Your task to perform on an android device: change keyboard looks Image 0: 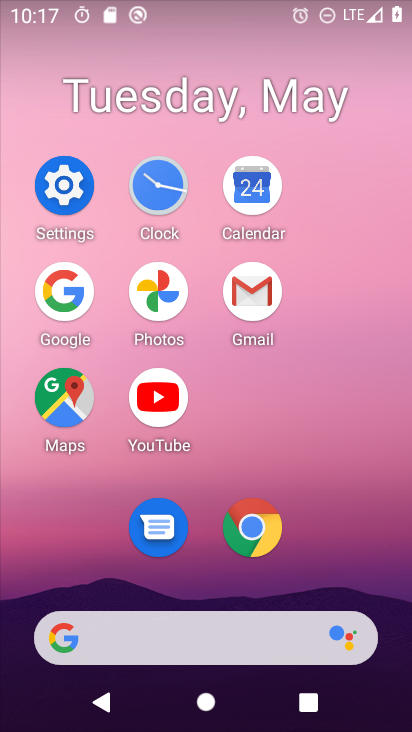
Step 0: click (83, 198)
Your task to perform on an android device: change keyboard looks Image 1: 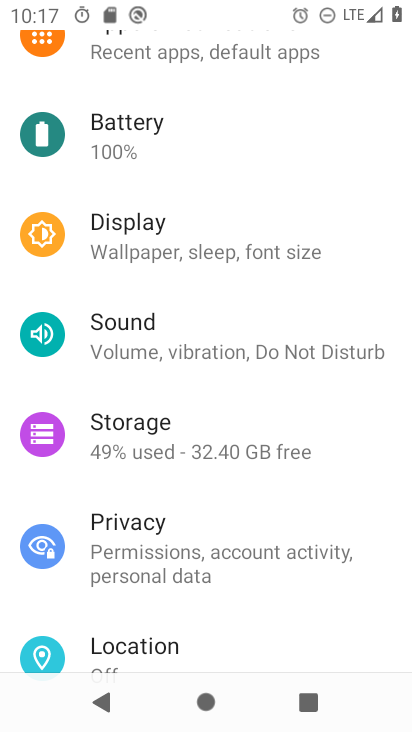
Step 1: drag from (225, 610) to (233, 245)
Your task to perform on an android device: change keyboard looks Image 2: 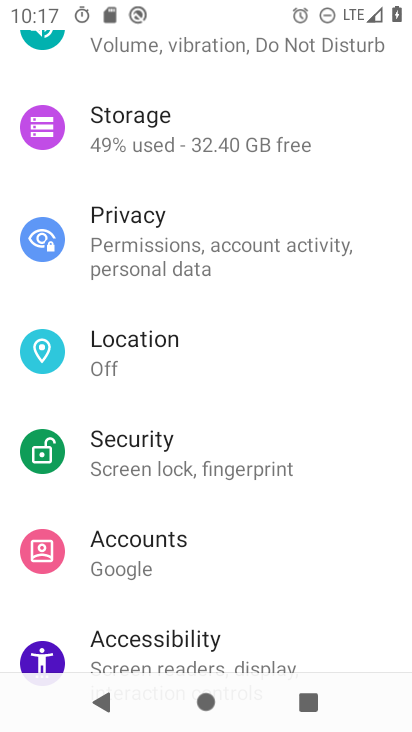
Step 2: drag from (223, 558) to (229, 223)
Your task to perform on an android device: change keyboard looks Image 3: 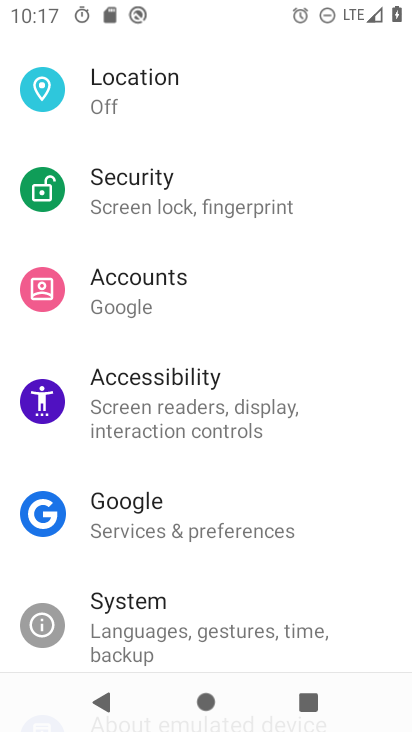
Step 3: drag from (215, 574) to (215, 264)
Your task to perform on an android device: change keyboard looks Image 4: 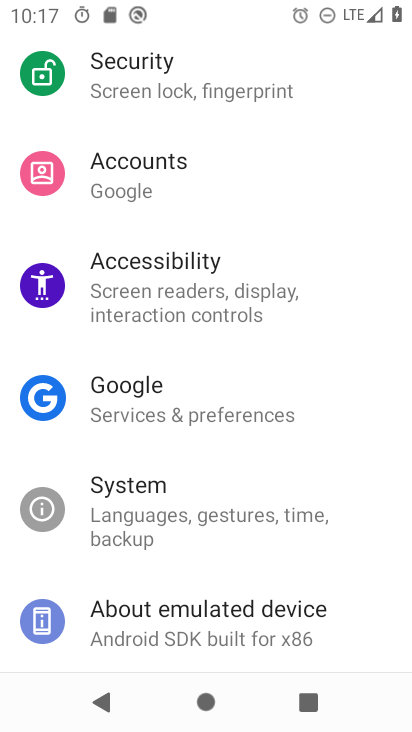
Step 4: click (226, 499)
Your task to perform on an android device: change keyboard looks Image 5: 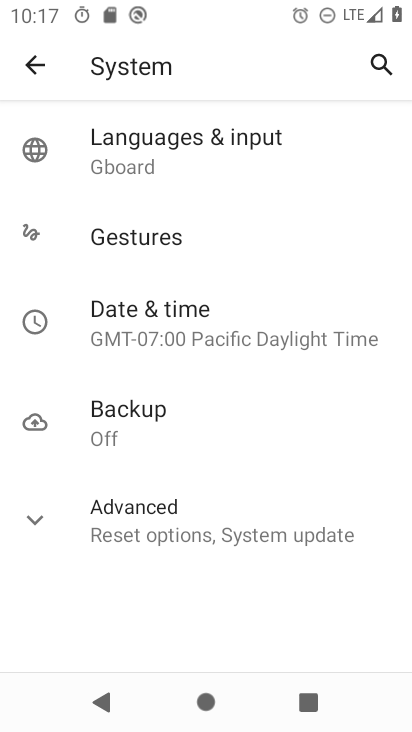
Step 5: click (172, 172)
Your task to perform on an android device: change keyboard looks Image 6: 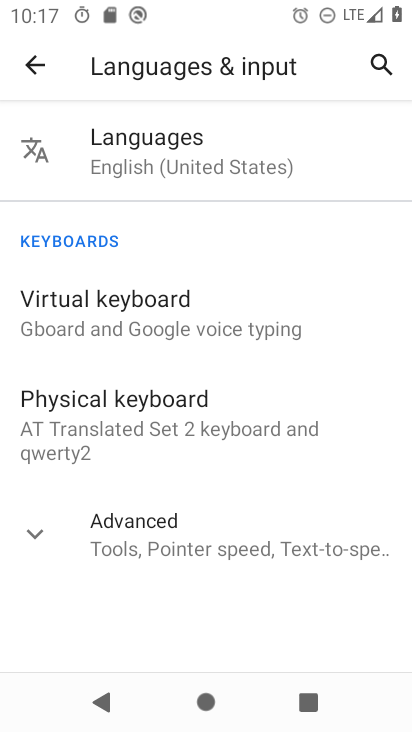
Step 6: click (191, 326)
Your task to perform on an android device: change keyboard looks Image 7: 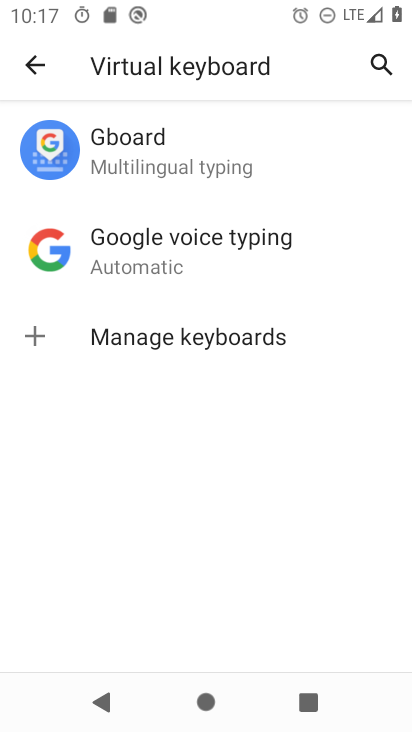
Step 7: click (149, 158)
Your task to perform on an android device: change keyboard looks Image 8: 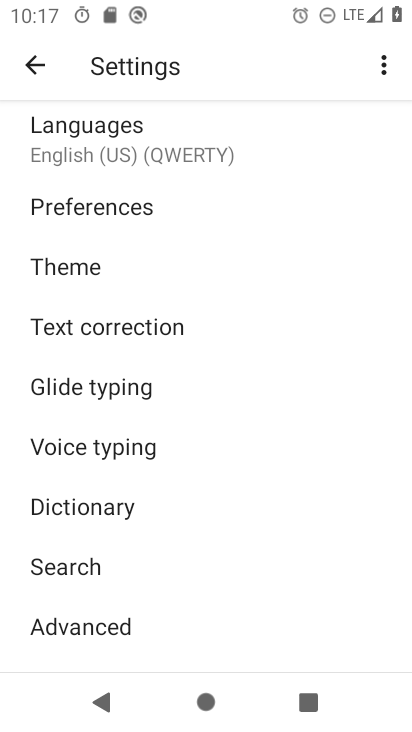
Step 8: click (68, 265)
Your task to perform on an android device: change keyboard looks Image 9: 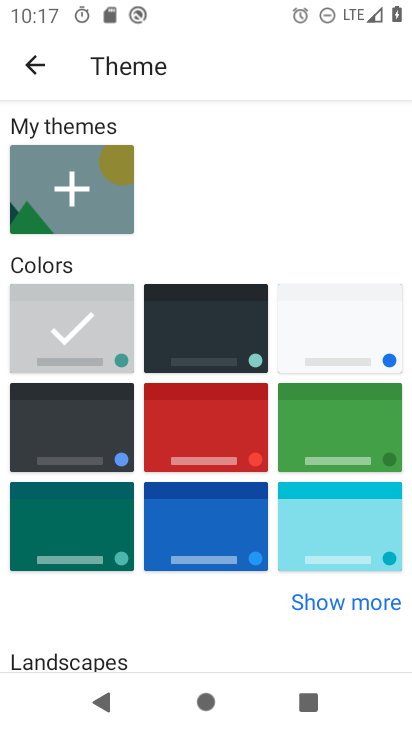
Step 9: click (255, 360)
Your task to perform on an android device: change keyboard looks Image 10: 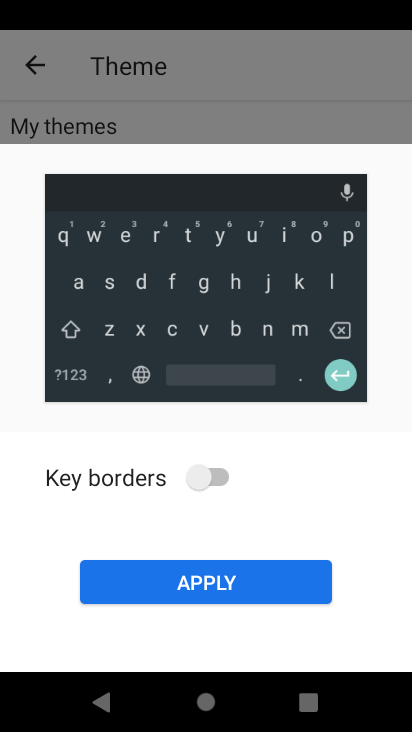
Step 10: click (215, 476)
Your task to perform on an android device: change keyboard looks Image 11: 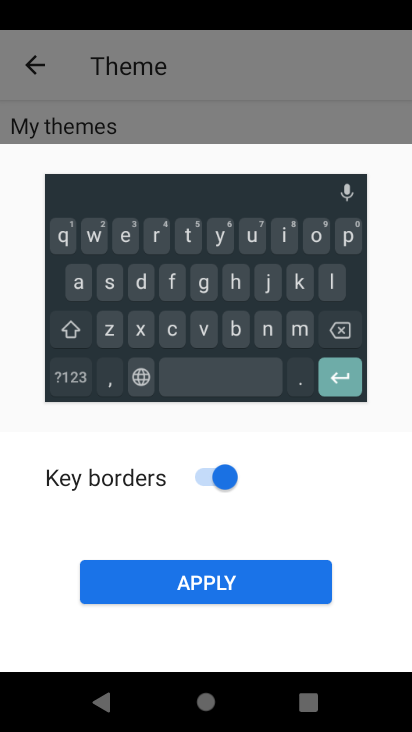
Step 11: click (265, 574)
Your task to perform on an android device: change keyboard looks Image 12: 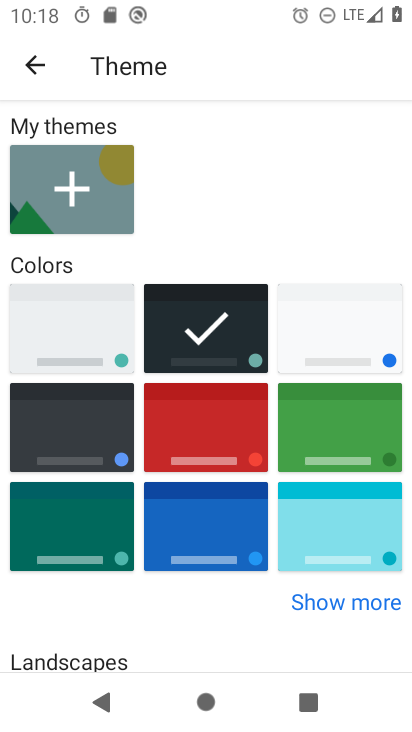
Step 12: task complete